Your task to perform on an android device: Open battery settings Image 0: 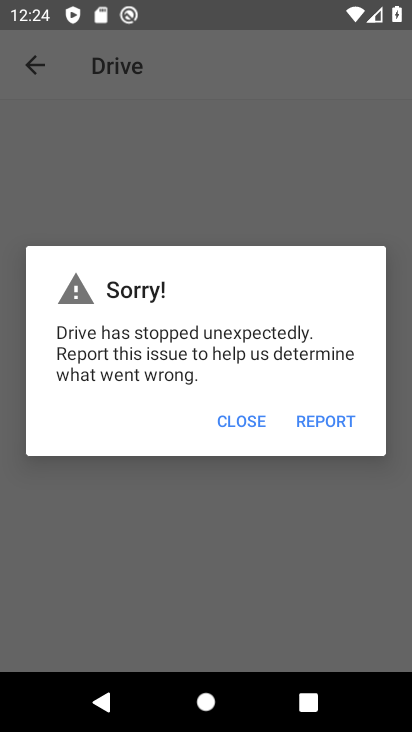
Step 0: press back button
Your task to perform on an android device: Open battery settings Image 1: 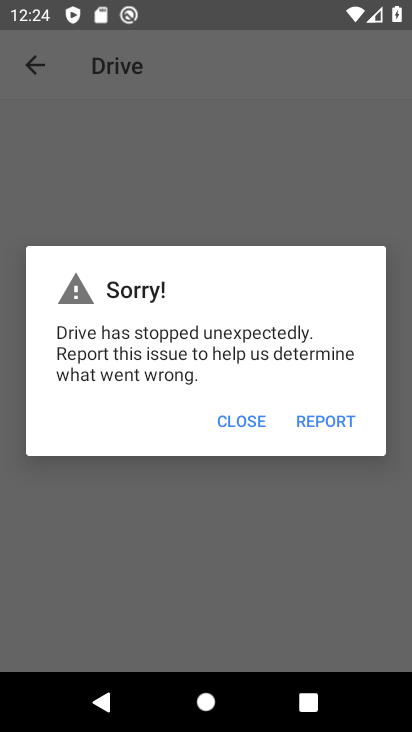
Step 1: press home button
Your task to perform on an android device: Open battery settings Image 2: 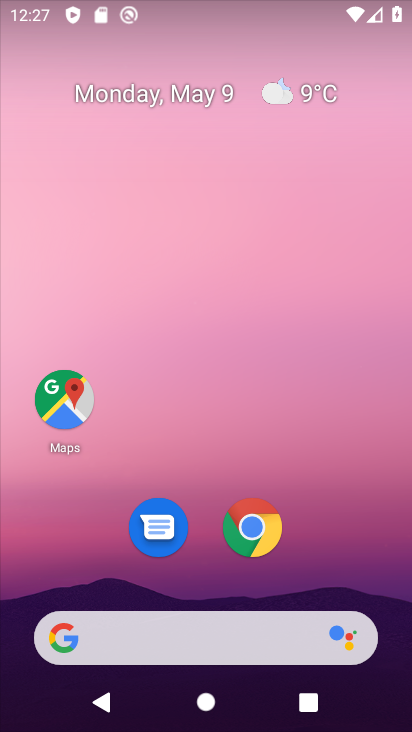
Step 2: drag from (230, 561) to (325, 22)
Your task to perform on an android device: Open battery settings Image 3: 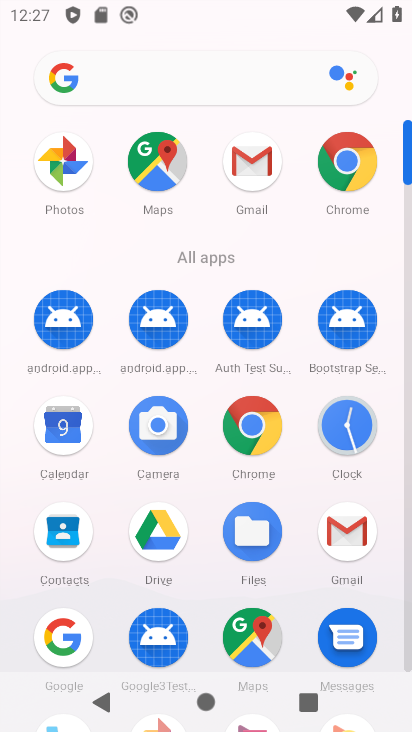
Step 3: drag from (187, 601) to (300, 79)
Your task to perform on an android device: Open battery settings Image 4: 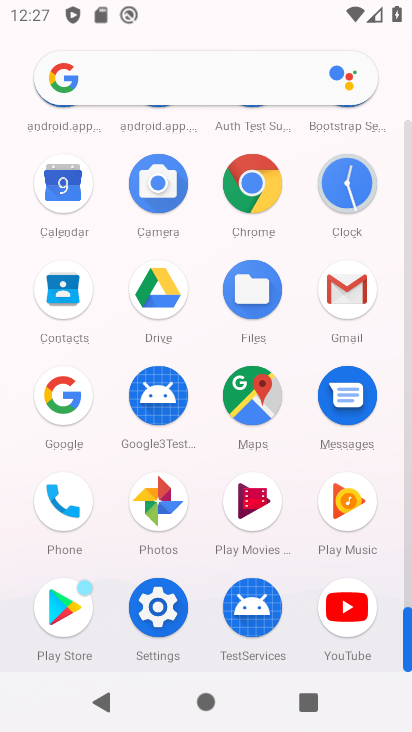
Step 4: click (154, 607)
Your task to perform on an android device: Open battery settings Image 5: 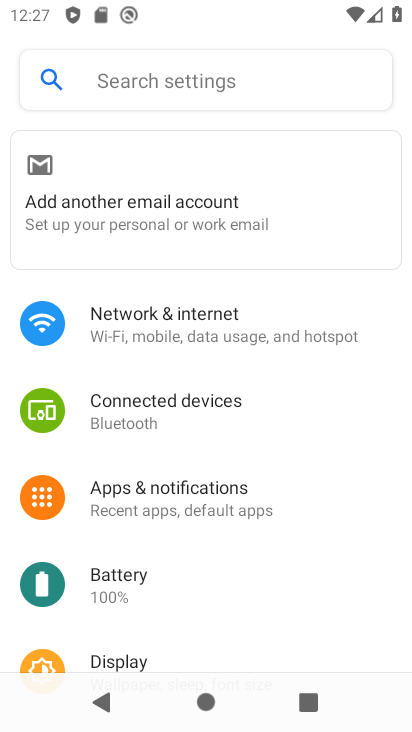
Step 5: click (131, 582)
Your task to perform on an android device: Open battery settings Image 6: 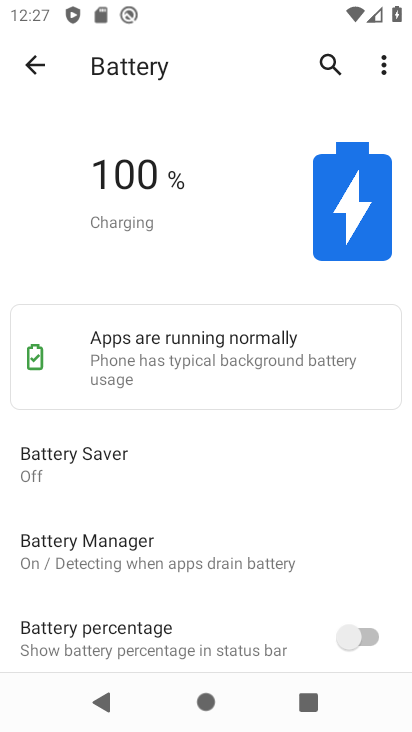
Step 6: task complete